Your task to perform on an android device: turn on improve location accuracy Image 0: 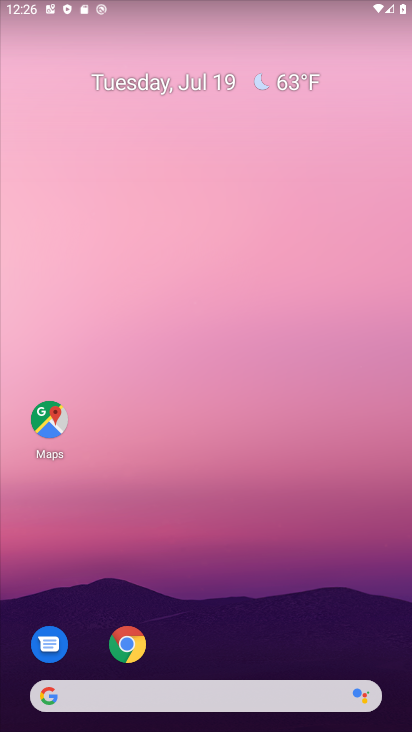
Step 0: drag from (214, 721) to (172, 158)
Your task to perform on an android device: turn on improve location accuracy Image 1: 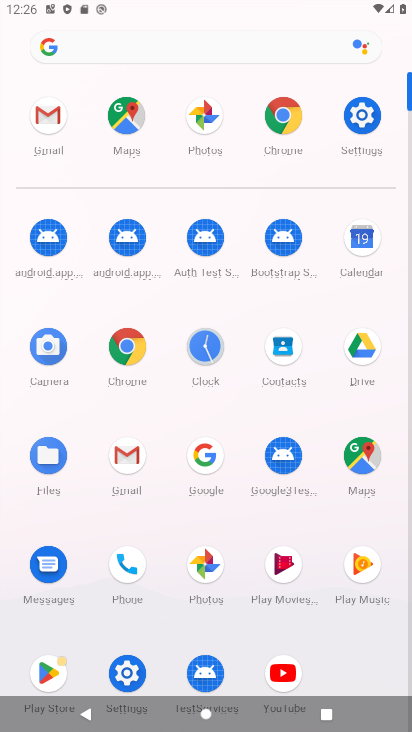
Step 1: click (353, 112)
Your task to perform on an android device: turn on improve location accuracy Image 2: 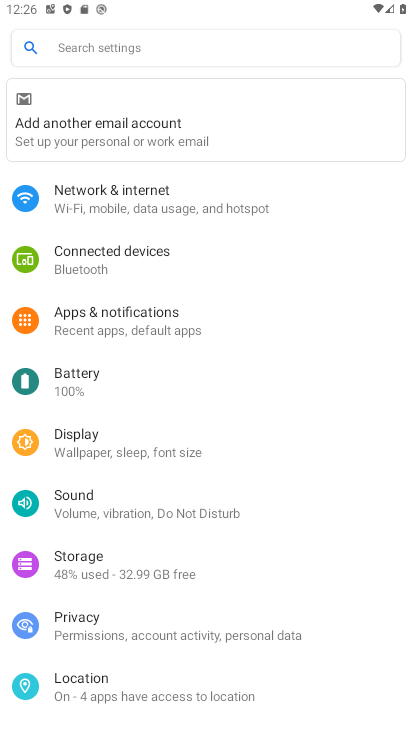
Step 2: click (92, 689)
Your task to perform on an android device: turn on improve location accuracy Image 3: 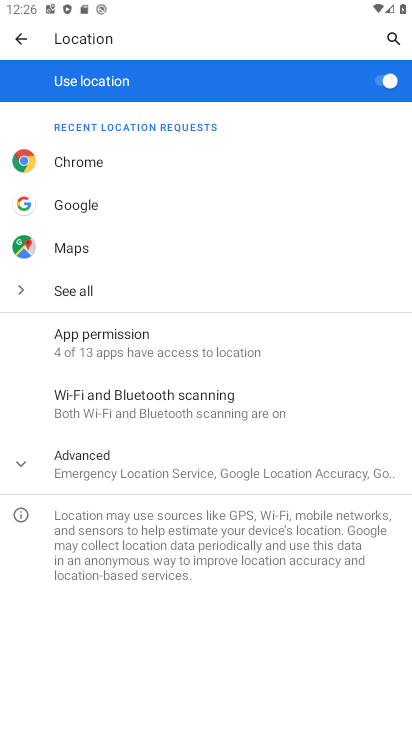
Step 3: click (124, 465)
Your task to perform on an android device: turn on improve location accuracy Image 4: 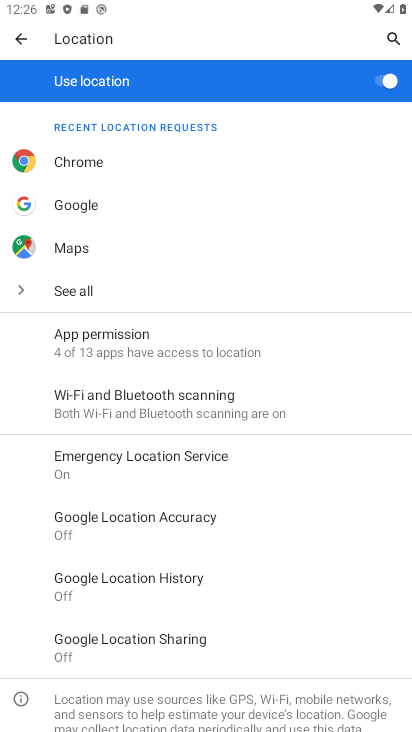
Step 4: click (160, 516)
Your task to perform on an android device: turn on improve location accuracy Image 5: 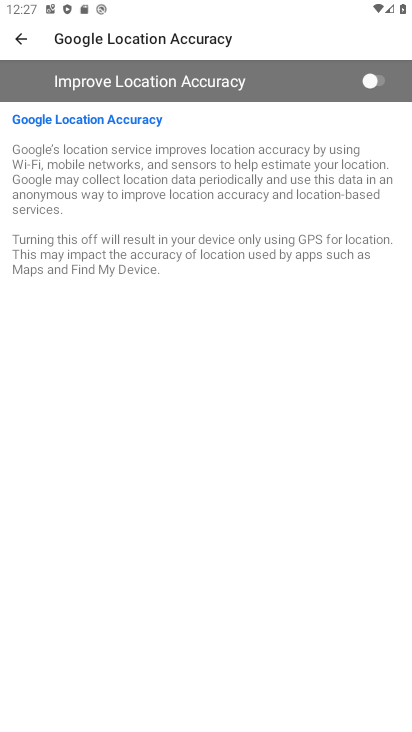
Step 5: click (380, 86)
Your task to perform on an android device: turn on improve location accuracy Image 6: 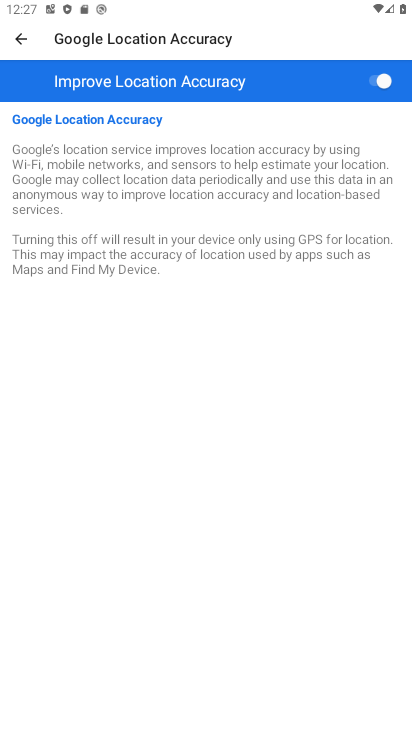
Step 6: task complete